Your task to perform on an android device: turn off location history Image 0: 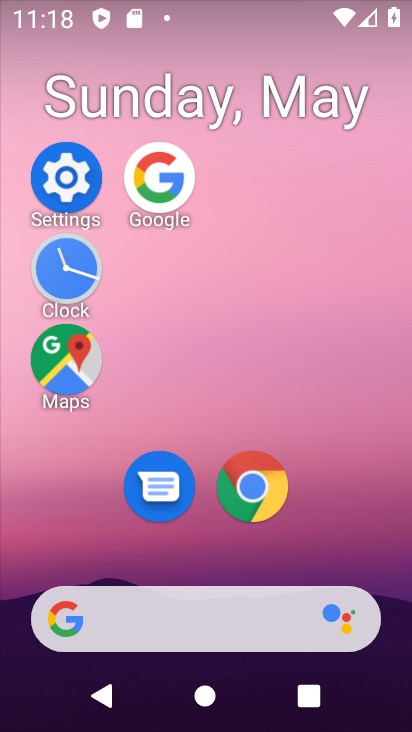
Step 0: click (77, 181)
Your task to perform on an android device: turn off location history Image 1: 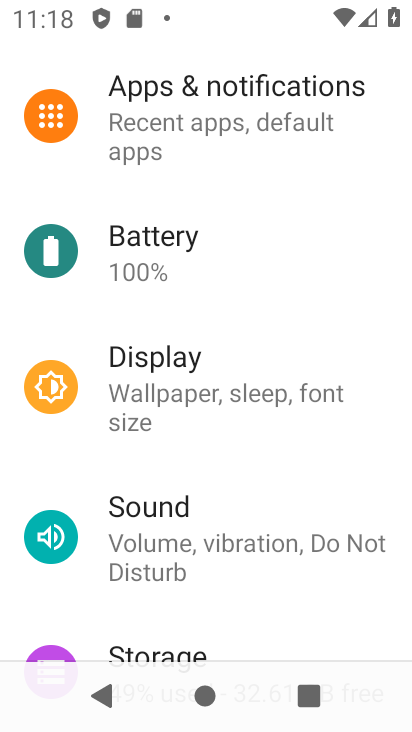
Step 1: drag from (331, 600) to (292, 213)
Your task to perform on an android device: turn off location history Image 2: 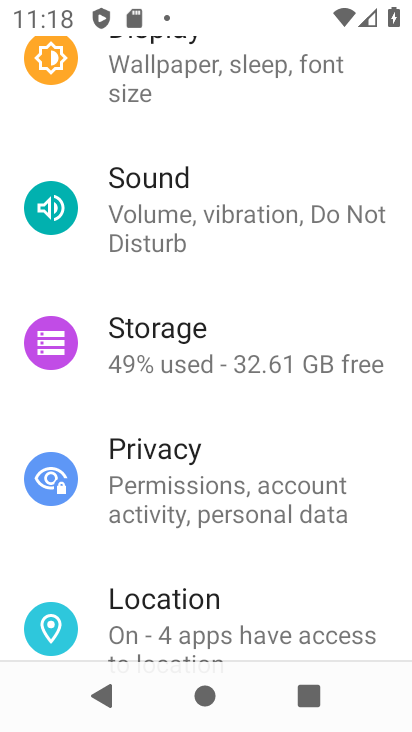
Step 2: click (245, 582)
Your task to perform on an android device: turn off location history Image 3: 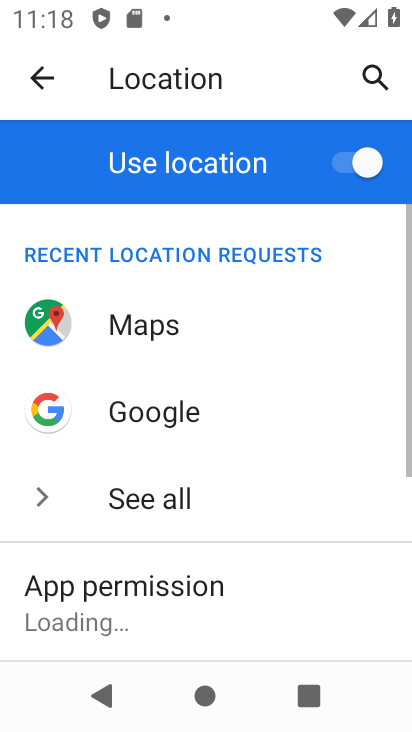
Step 3: drag from (245, 582) to (236, 174)
Your task to perform on an android device: turn off location history Image 4: 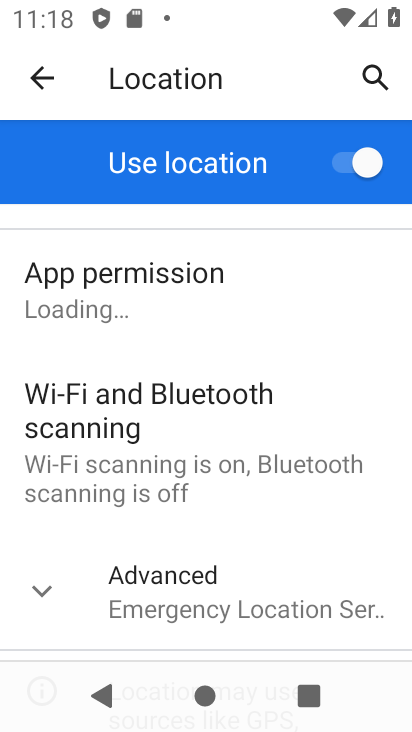
Step 4: click (274, 604)
Your task to perform on an android device: turn off location history Image 5: 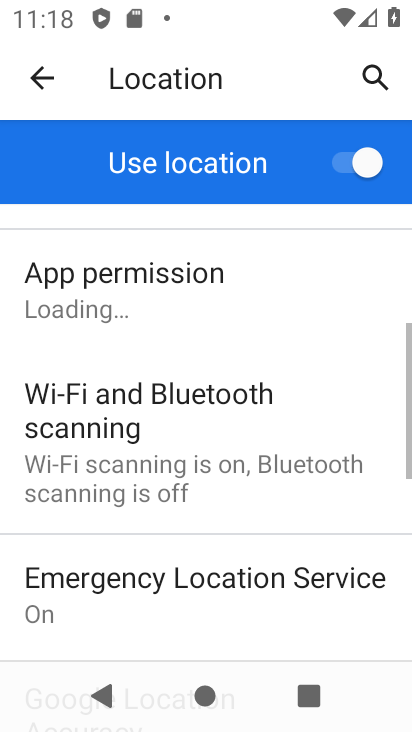
Step 5: drag from (274, 604) to (277, 159)
Your task to perform on an android device: turn off location history Image 6: 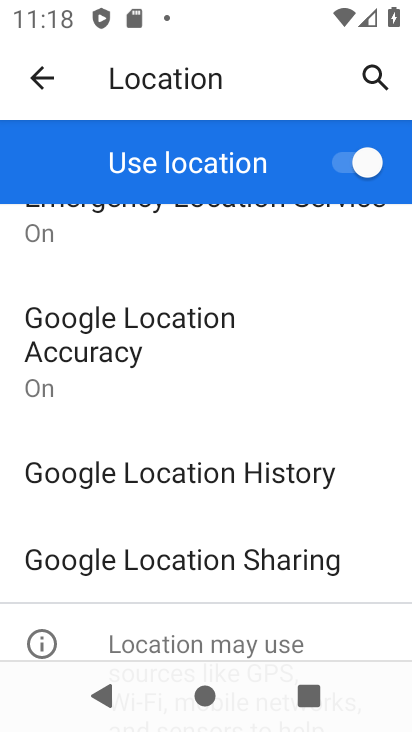
Step 6: click (268, 481)
Your task to perform on an android device: turn off location history Image 7: 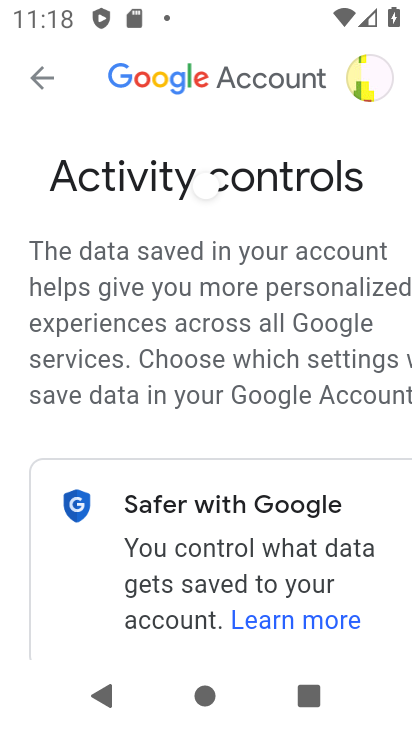
Step 7: drag from (328, 587) to (325, 140)
Your task to perform on an android device: turn off location history Image 8: 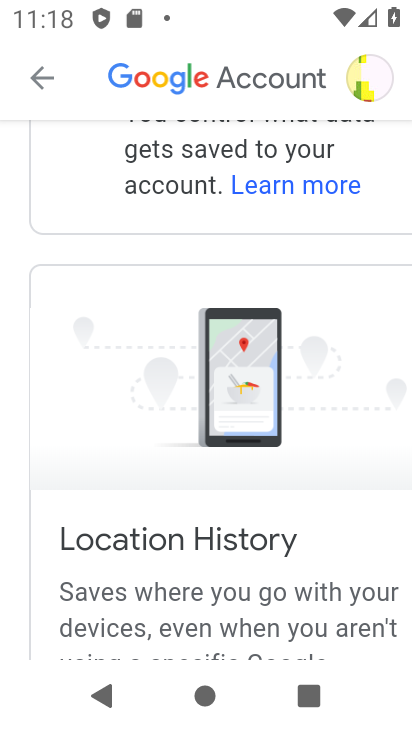
Step 8: drag from (315, 587) to (324, 110)
Your task to perform on an android device: turn off location history Image 9: 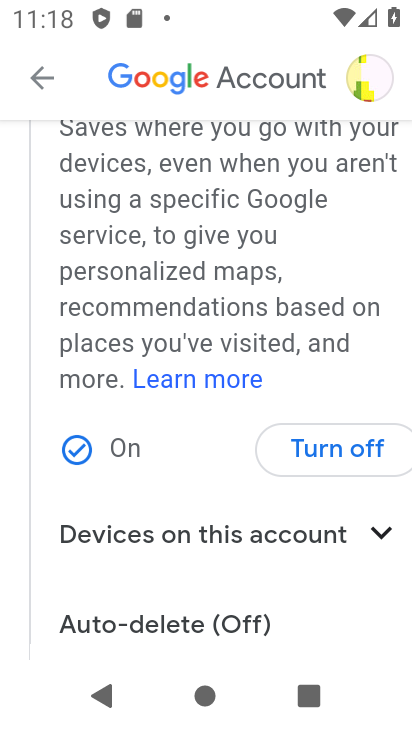
Step 9: click (335, 452)
Your task to perform on an android device: turn off location history Image 10: 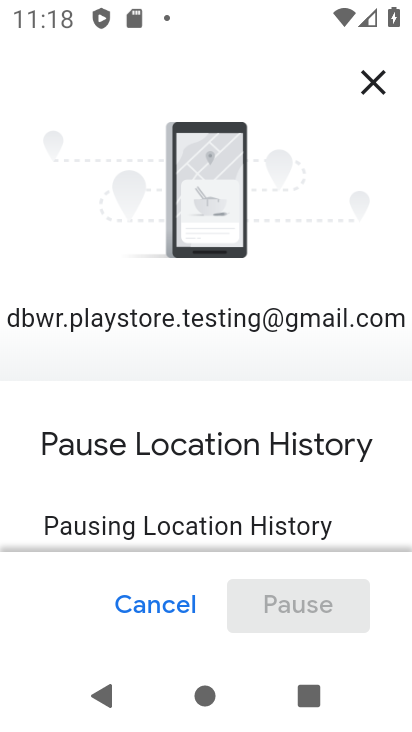
Step 10: drag from (287, 522) to (245, 159)
Your task to perform on an android device: turn off location history Image 11: 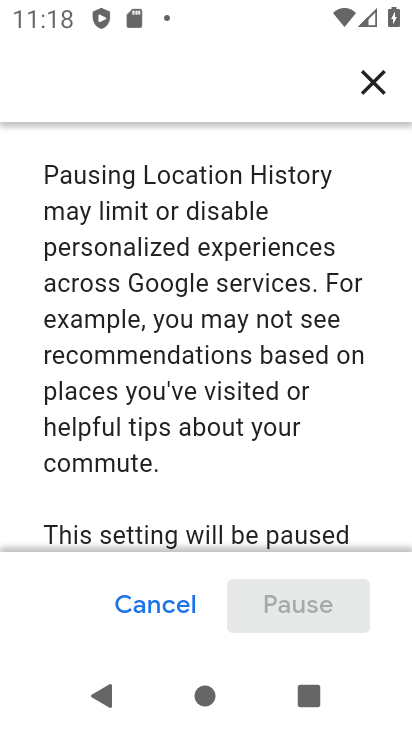
Step 11: drag from (286, 442) to (286, 96)
Your task to perform on an android device: turn off location history Image 12: 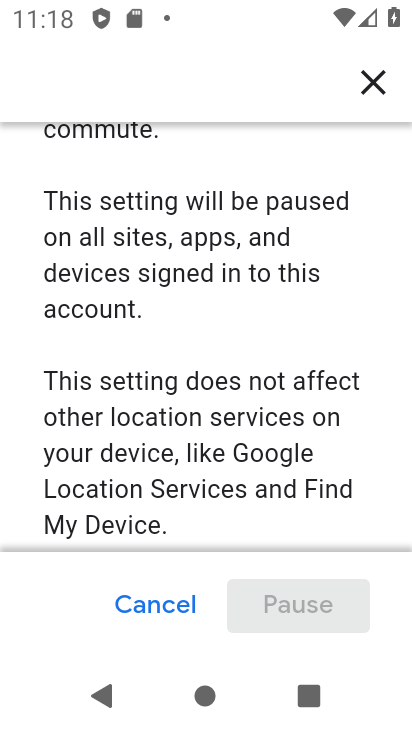
Step 12: drag from (282, 439) to (300, 144)
Your task to perform on an android device: turn off location history Image 13: 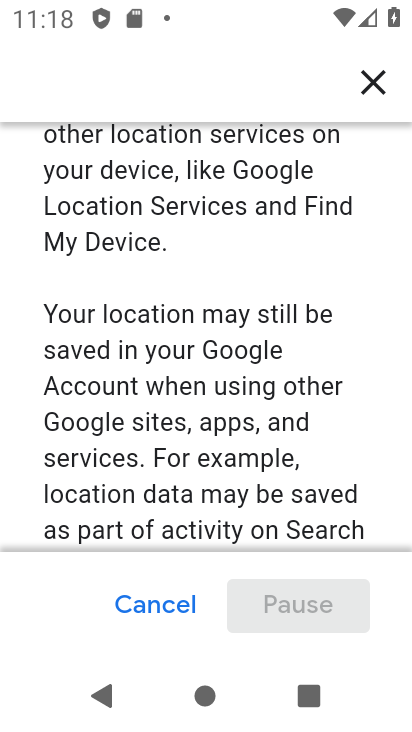
Step 13: drag from (159, 401) to (200, 68)
Your task to perform on an android device: turn off location history Image 14: 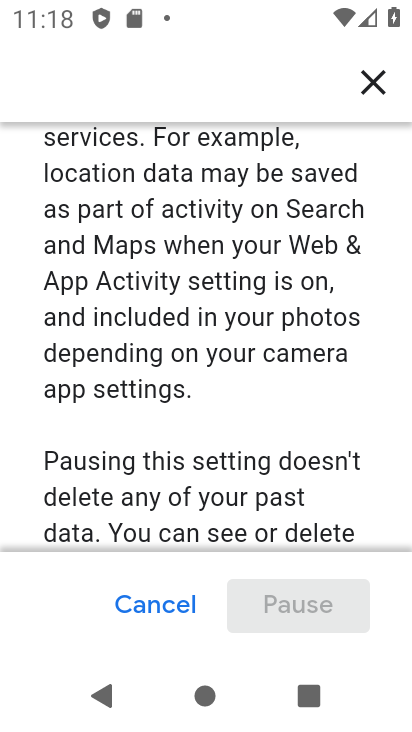
Step 14: drag from (143, 475) to (148, 175)
Your task to perform on an android device: turn off location history Image 15: 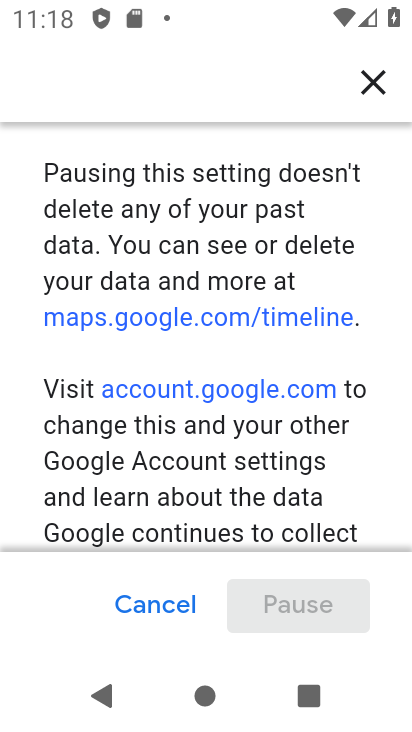
Step 15: drag from (162, 465) to (179, 27)
Your task to perform on an android device: turn off location history Image 16: 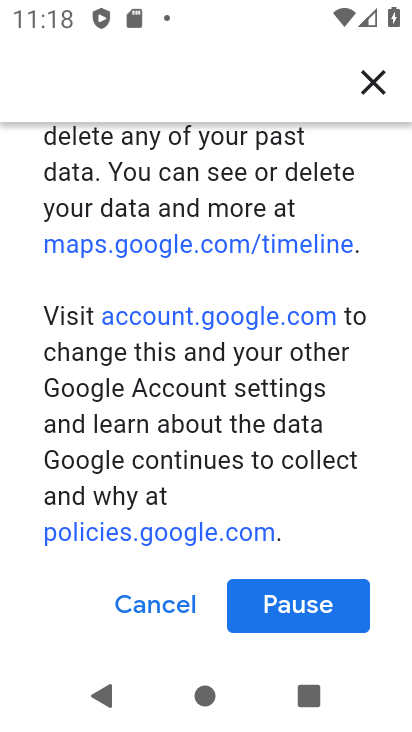
Step 16: click (315, 614)
Your task to perform on an android device: turn off location history Image 17: 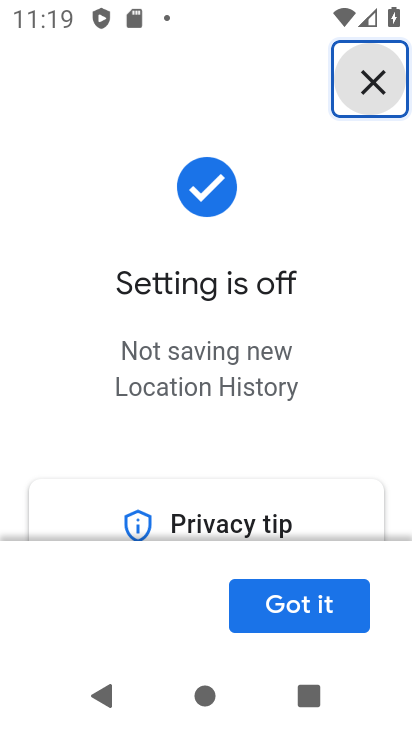
Step 17: click (300, 643)
Your task to perform on an android device: turn off location history Image 18: 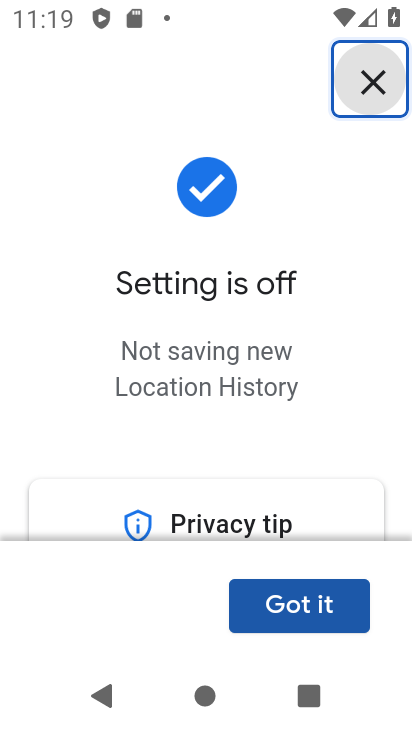
Step 18: click (315, 614)
Your task to perform on an android device: turn off location history Image 19: 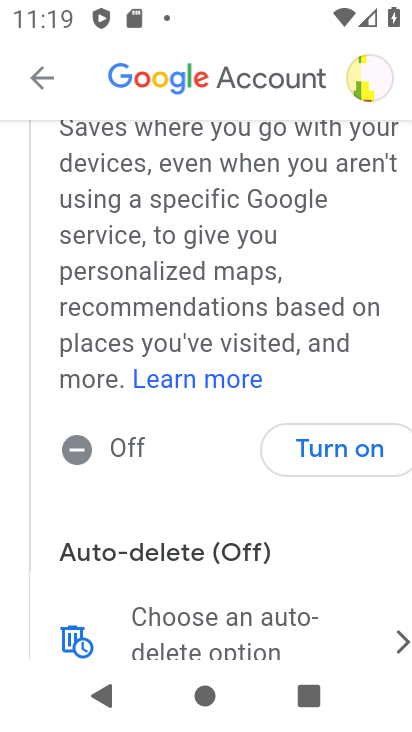
Step 19: task complete